Your task to perform on an android device: visit the assistant section in the google photos Image 0: 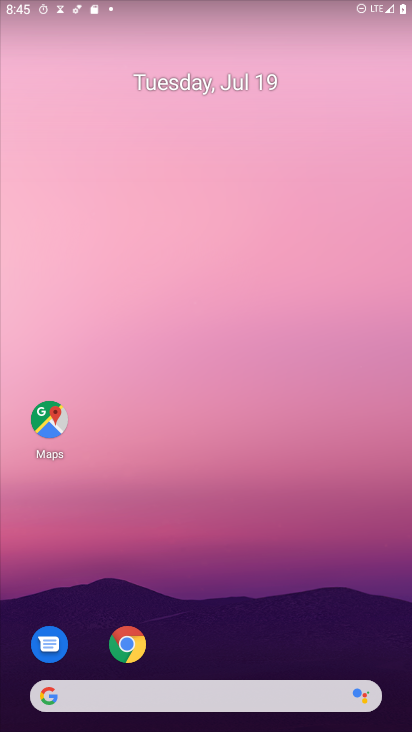
Step 0: click (78, 686)
Your task to perform on an android device: visit the assistant section in the google photos Image 1: 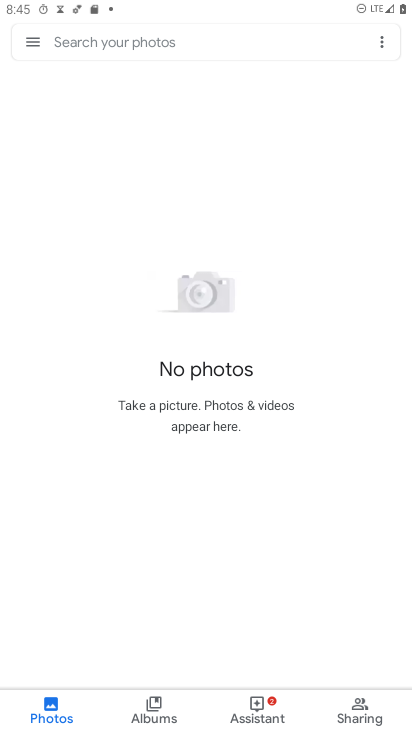
Step 1: click (273, 715)
Your task to perform on an android device: visit the assistant section in the google photos Image 2: 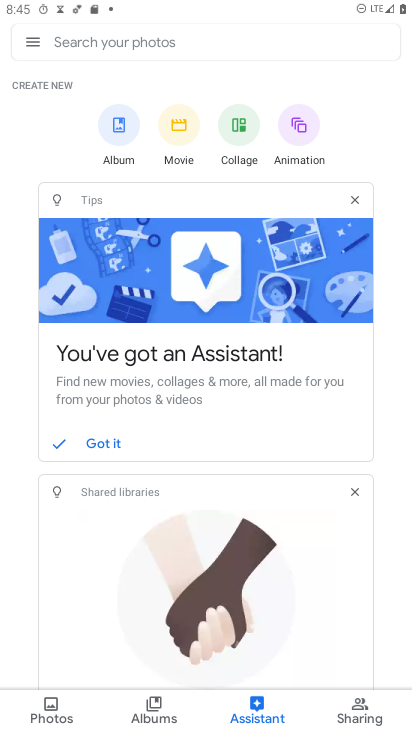
Step 2: task complete